Your task to perform on an android device: Go to accessibility settings Image 0: 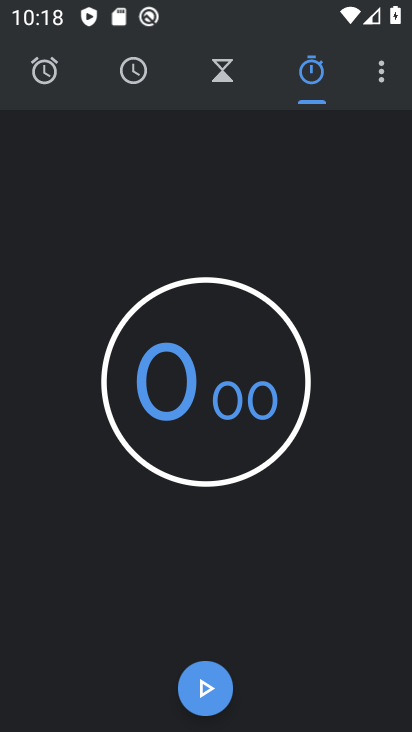
Step 0: press home button
Your task to perform on an android device: Go to accessibility settings Image 1: 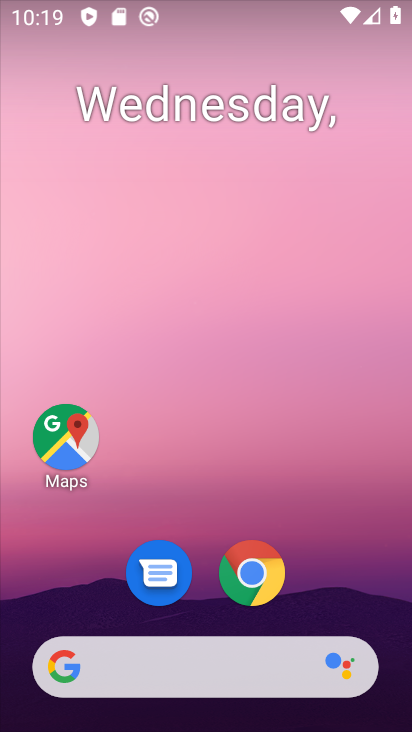
Step 1: drag from (336, 328) to (322, 227)
Your task to perform on an android device: Go to accessibility settings Image 2: 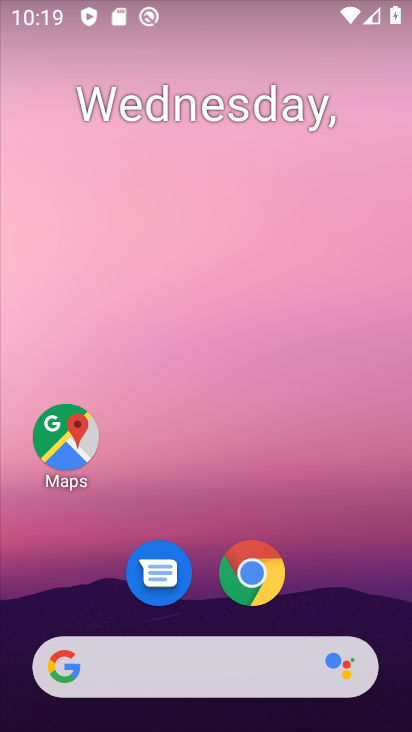
Step 2: click (360, 341)
Your task to perform on an android device: Go to accessibility settings Image 3: 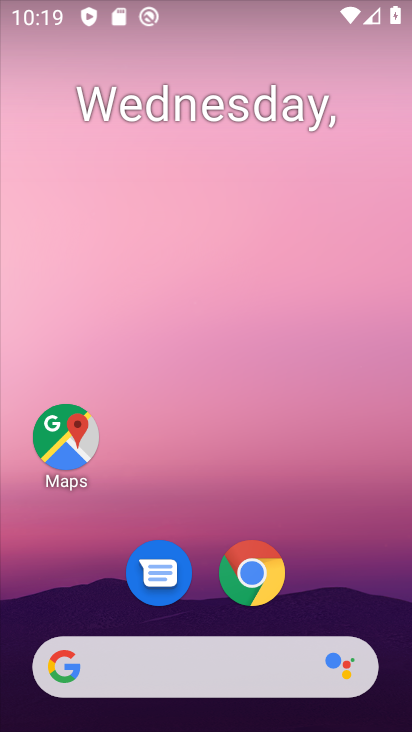
Step 3: drag from (343, 327) to (327, 124)
Your task to perform on an android device: Go to accessibility settings Image 4: 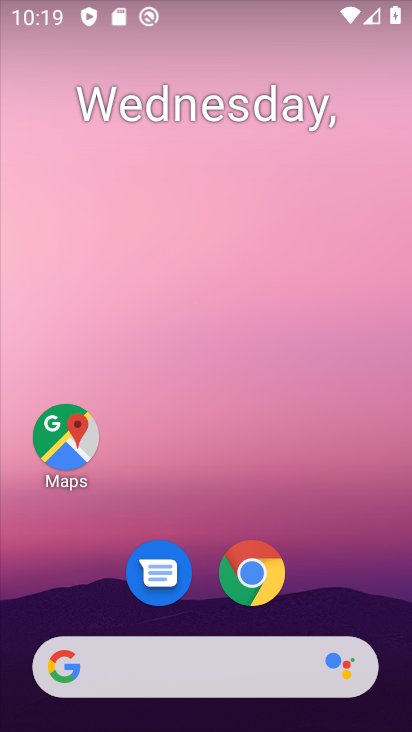
Step 4: drag from (362, 541) to (348, 151)
Your task to perform on an android device: Go to accessibility settings Image 5: 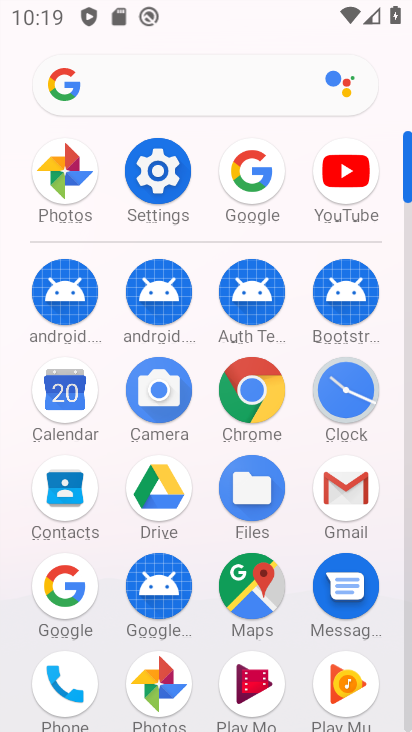
Step 5: click (143, 172)
Your task to perform on an android device: Go to accessibility settings Image 6: 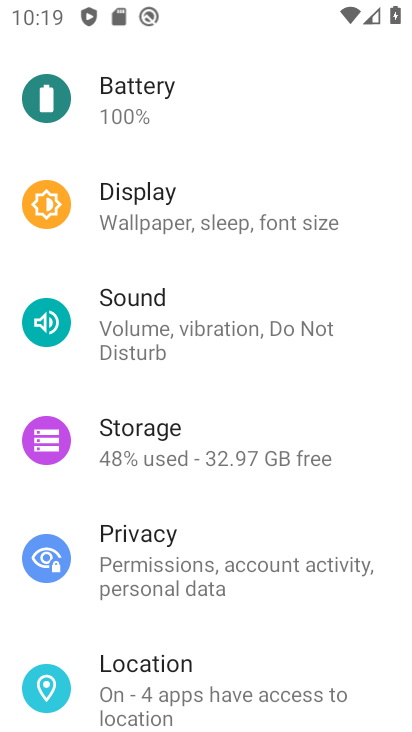
Step 6: drag from (337, 568) to (352, 236)
Your task to perform on an android device: Go to accessibility settings Image 7: 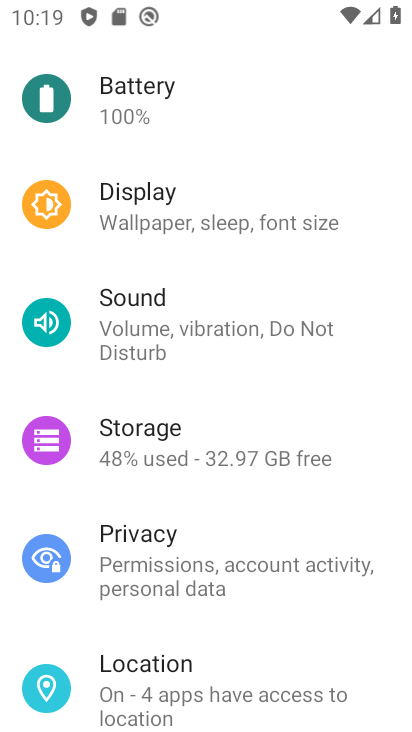
Step 7: drag from (364, 647) to (385, 260)
Your task to perform on an android device: Go to accessibility settings Image 8: 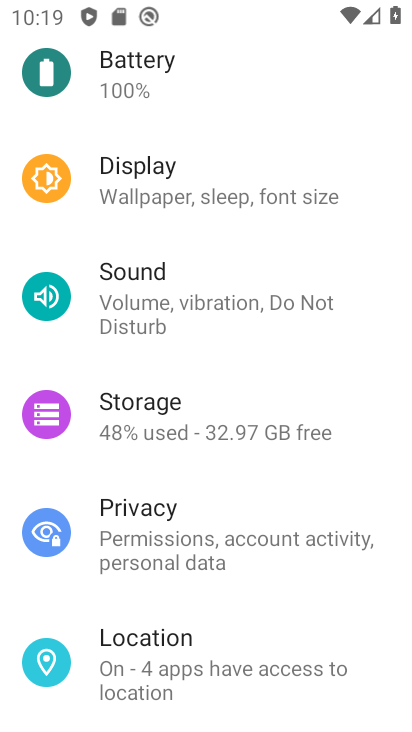
Step 8: drag from (367, 651) to (405, 219)
Your task to perform on an android device: Go to accessibility settings Image 9: 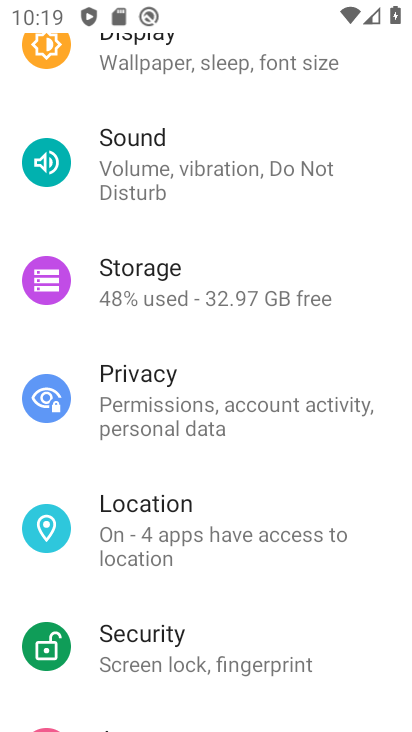
Step 9: drag from (384, 627) to (362, 216)
Your task to perform on an android device: Go to accessibility settings Image 10: 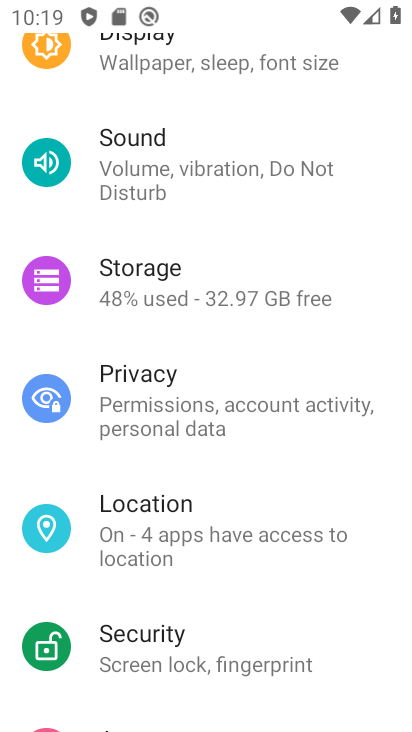
Step 10: drag from (366, 405) to (331, 113)
Your task to perform on an android device: Go to accessibility settings Image 11: 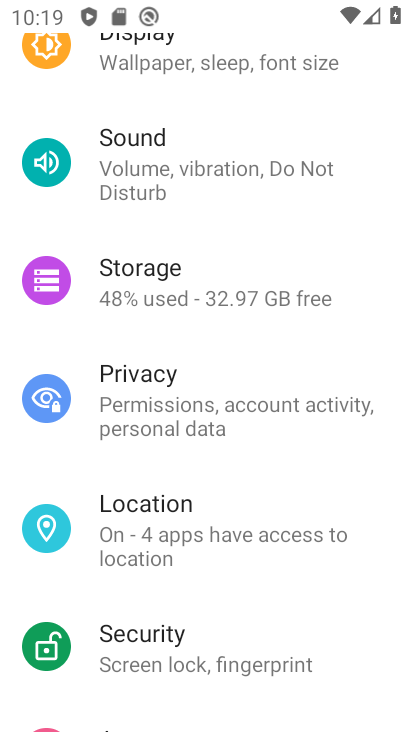
Step 11: drag from (348, 692) to (367, 136)
Your task to perform on an android device: Go to accessibility settings Image 12: 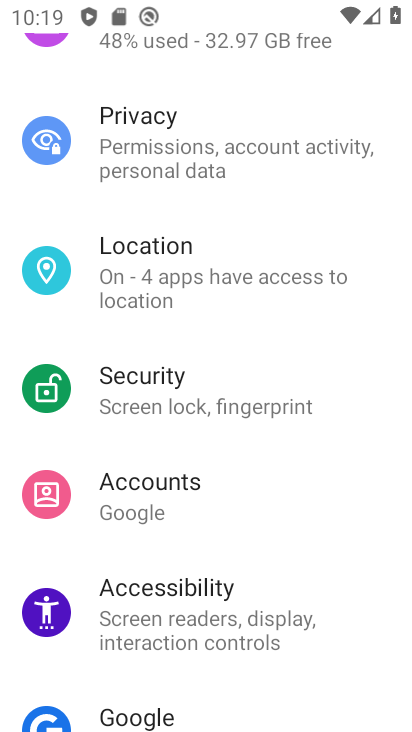
Step 12: click (118, 612)
Your task to perform on an android device: Go to accessibility settings Image 13: 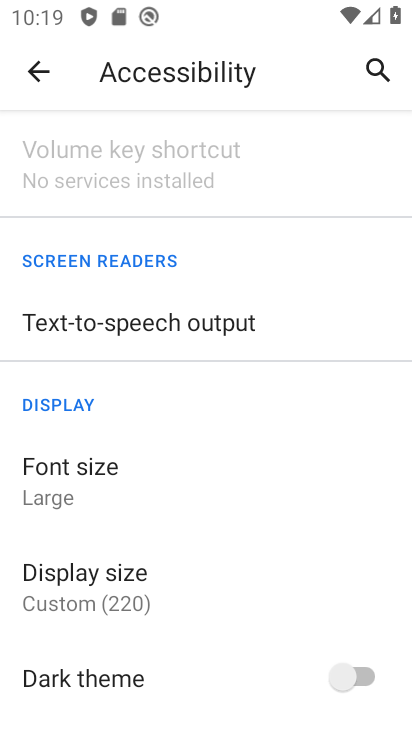
Step 13: task complete